Your task to perform on an android device: Is it going to rain today? Image 0: 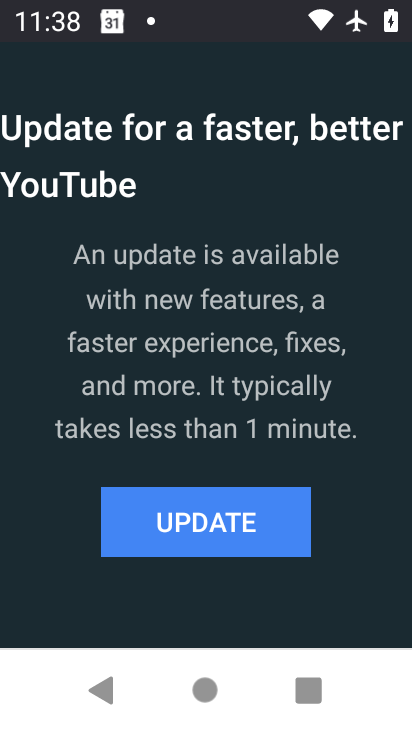
Step 0: press home button
Your task to perform on an android device: Is it going to rain today? Image 1: 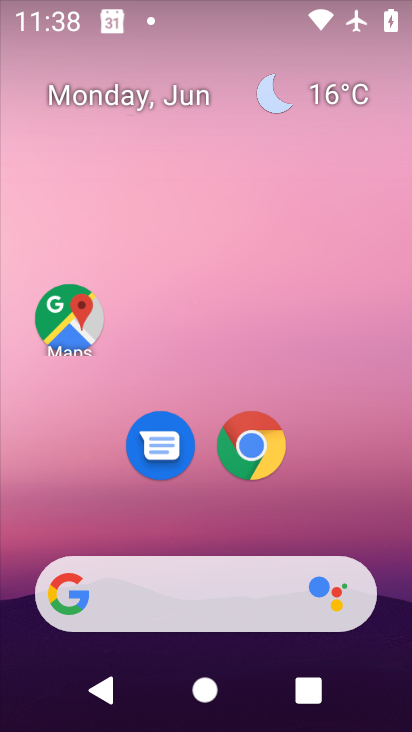
Step 1: click (139, 579)
Your task to perform on an android device: Is it going to rain today? Image 2: 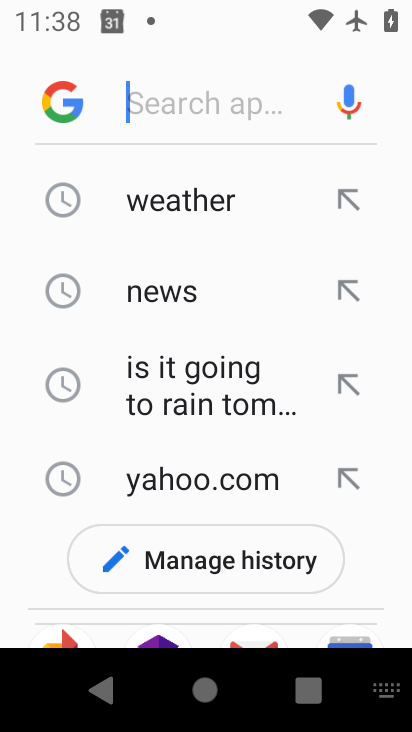
Step 2: type "rain today"
Your task to perform on an android device: Is it going to rain today? Image 3: 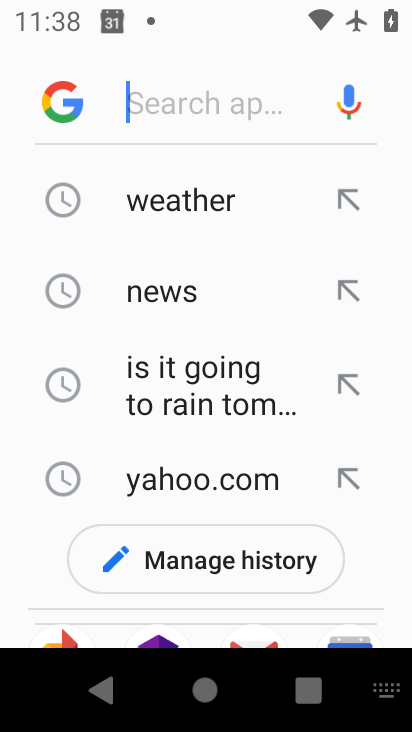
Step 3: click (187, 100)
Your task to perform on an android device: Is it going to rain today? Image 4: 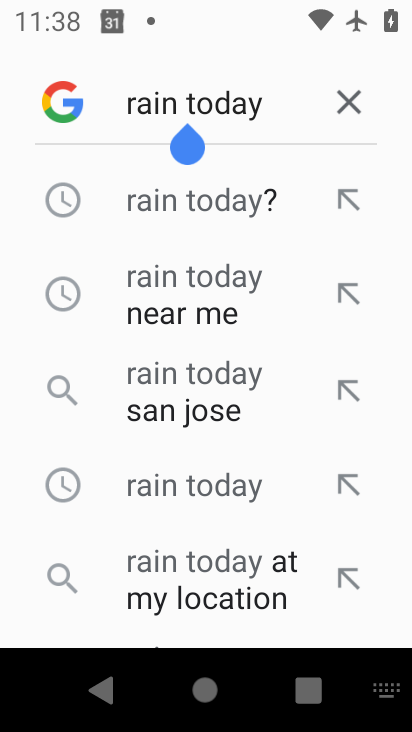
Step 4: click (242, 194)
Your task to perform on an android device: Is it going to rain today? Image 5: 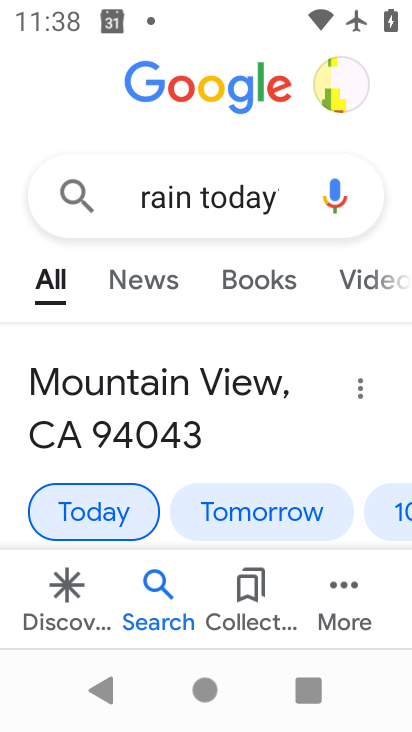
Step 5: task complete